Your task to perform on an android device: Add "logitech g910" to the cart on walmart Image 0: 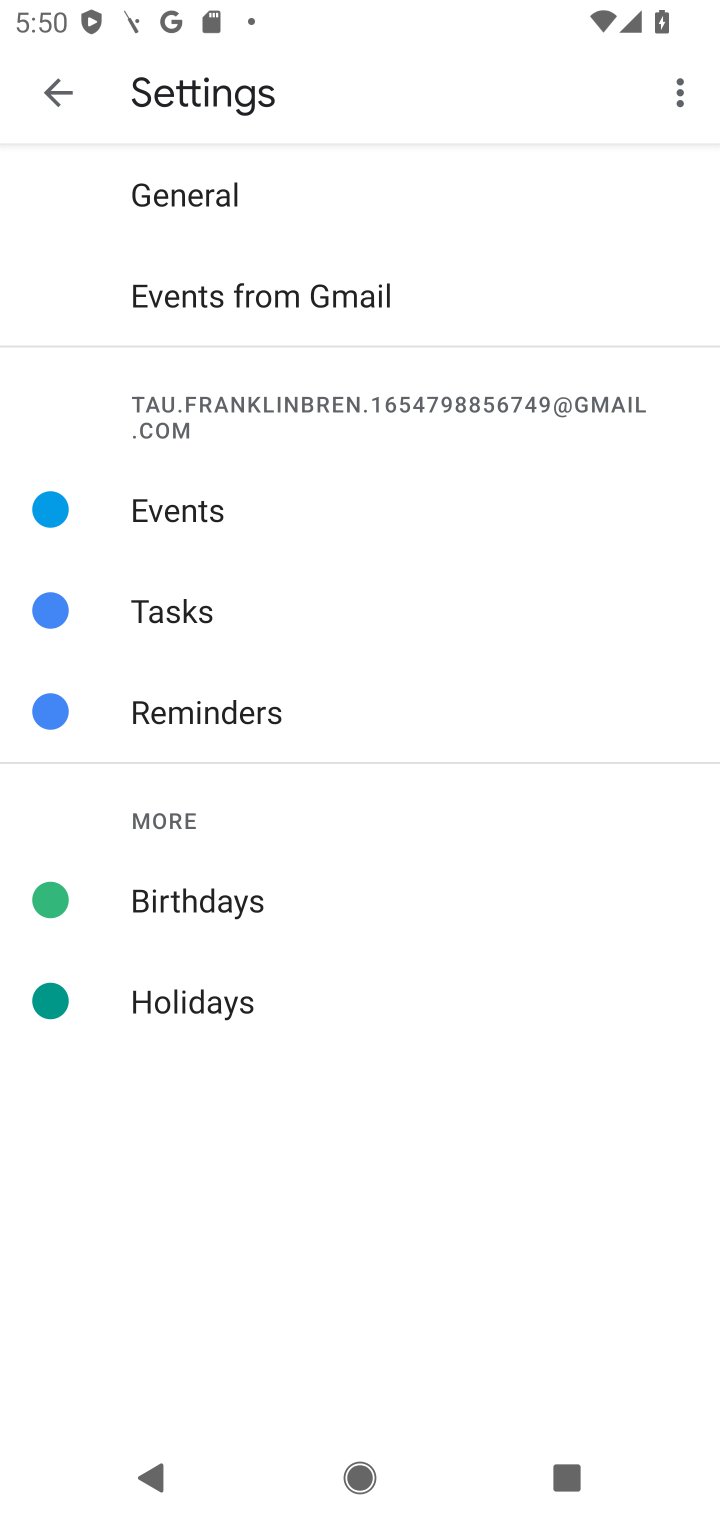
Step 0: press home button
Your task to perform on an android device: Add "logitech g910" to the cart on walmart Image 1: 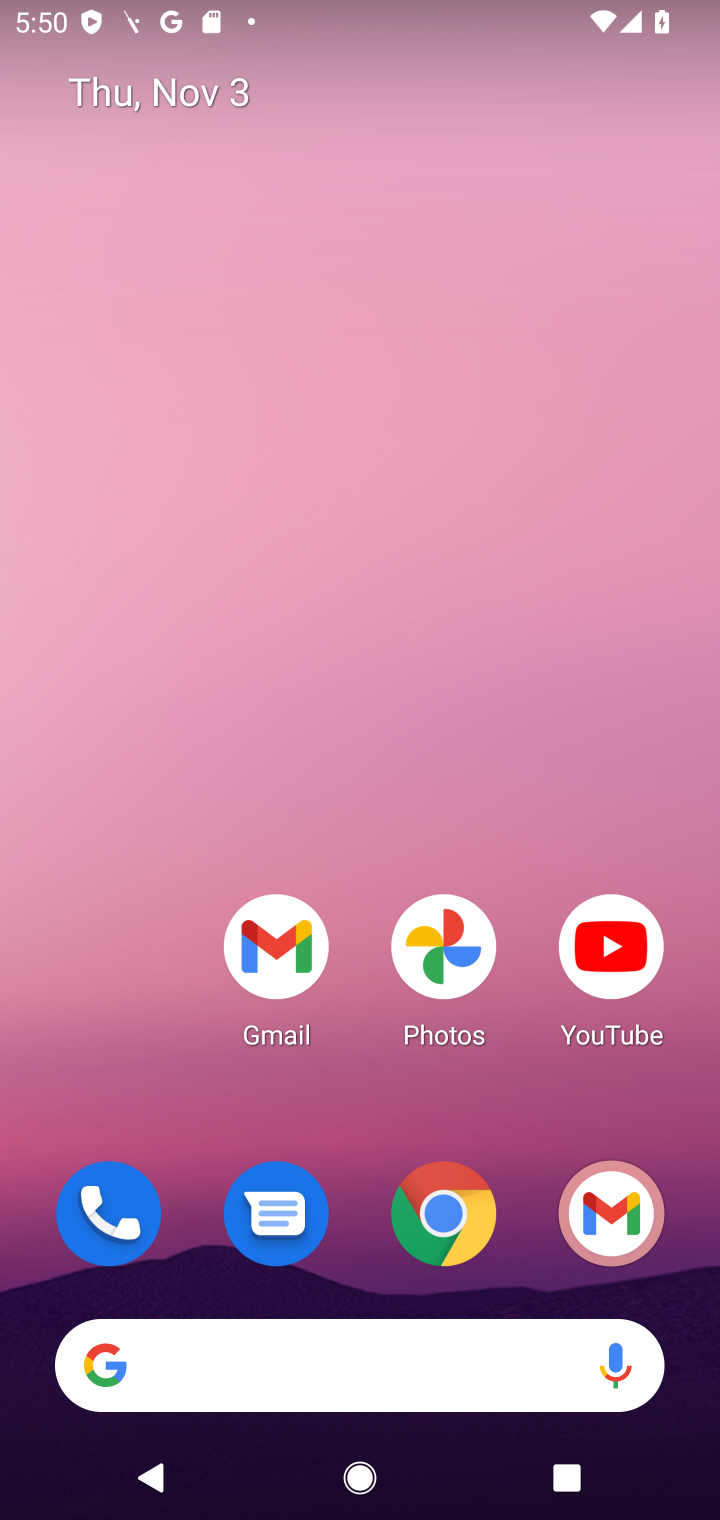
Step 1: click (433, 1236)
Your task to perform on an android device: Add "logitech g910" to the cart on walmart Image 2: 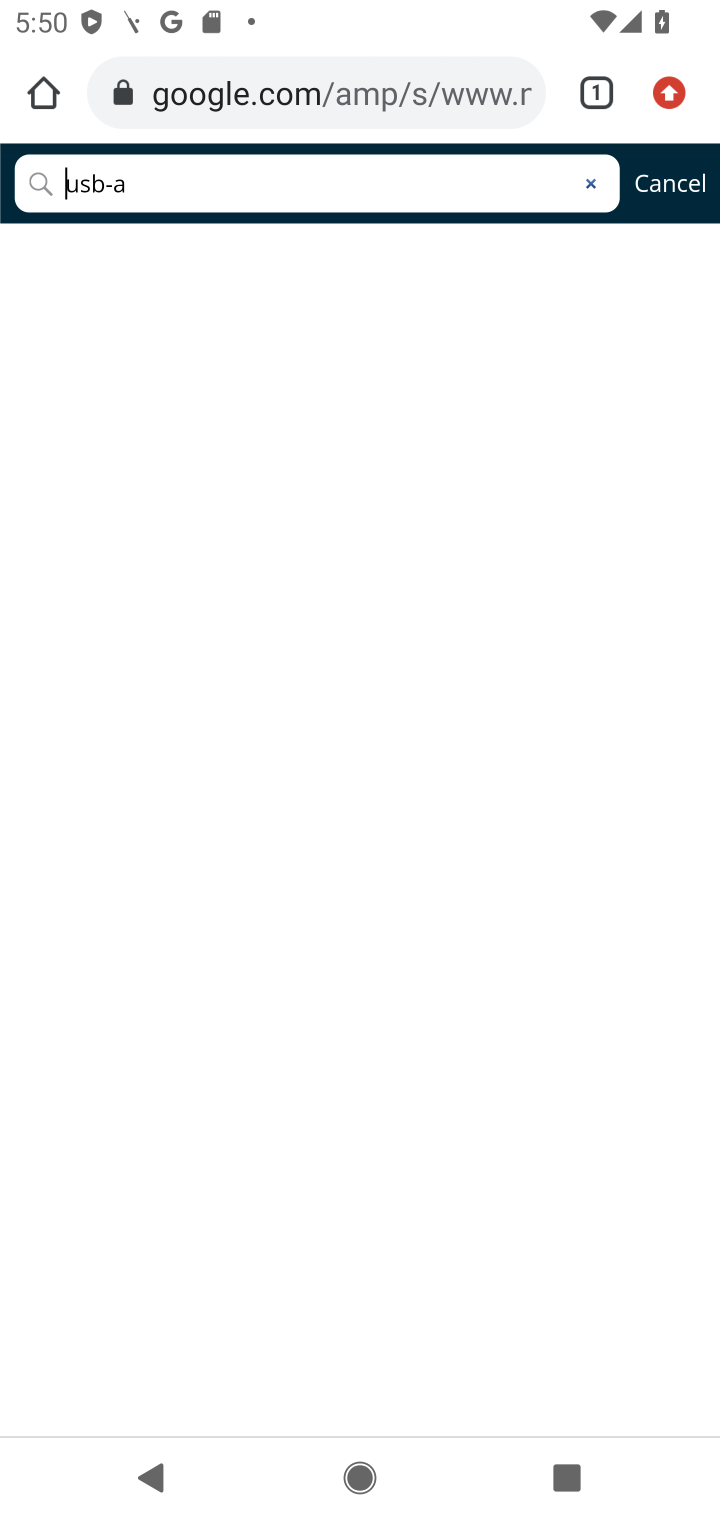
Step 2: click (360, 97)
Your task to perform on an android device: Add "logitech g910" to the cart on walmart Image 3: 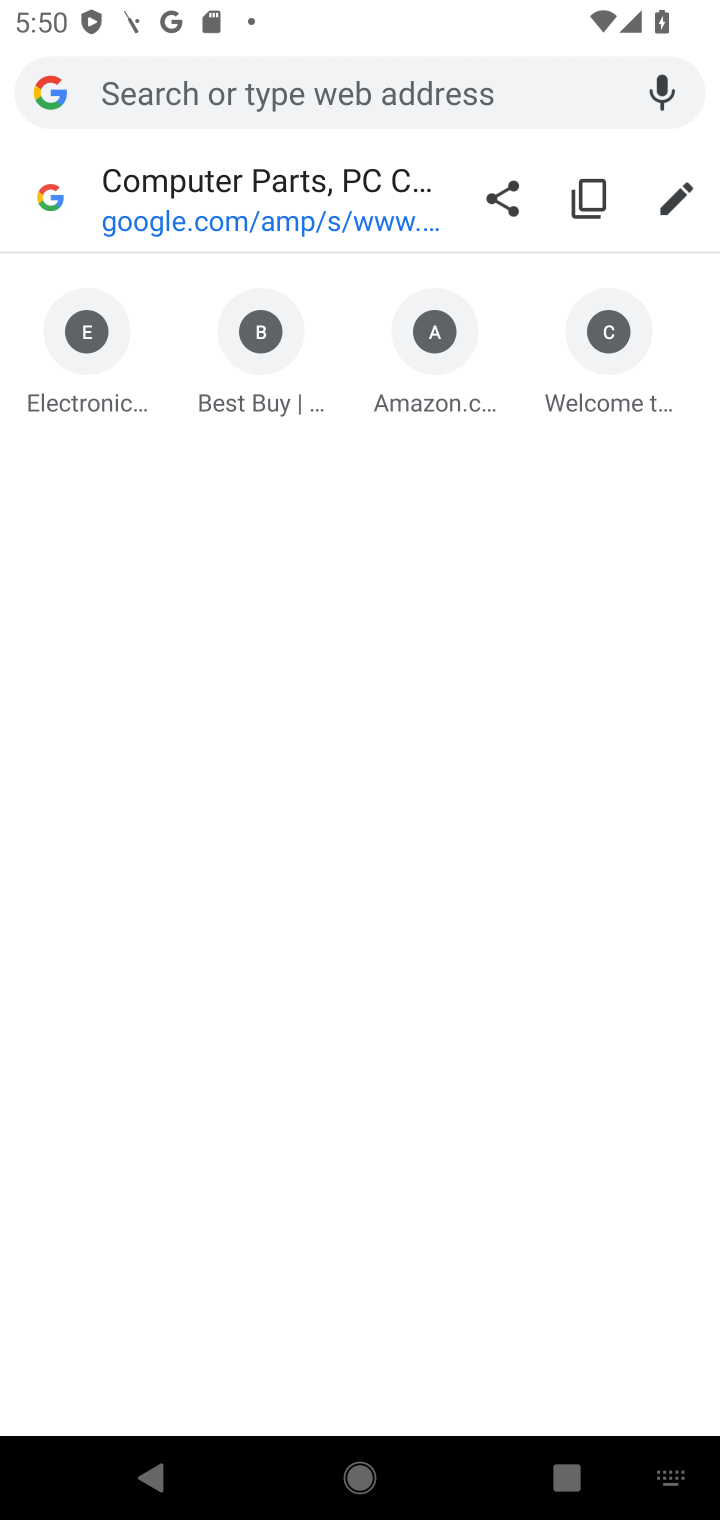
Step 3: type "walmart.com"
Your task to perform on an android device: Add "logitech g910" to the cart on walmart Image 4: 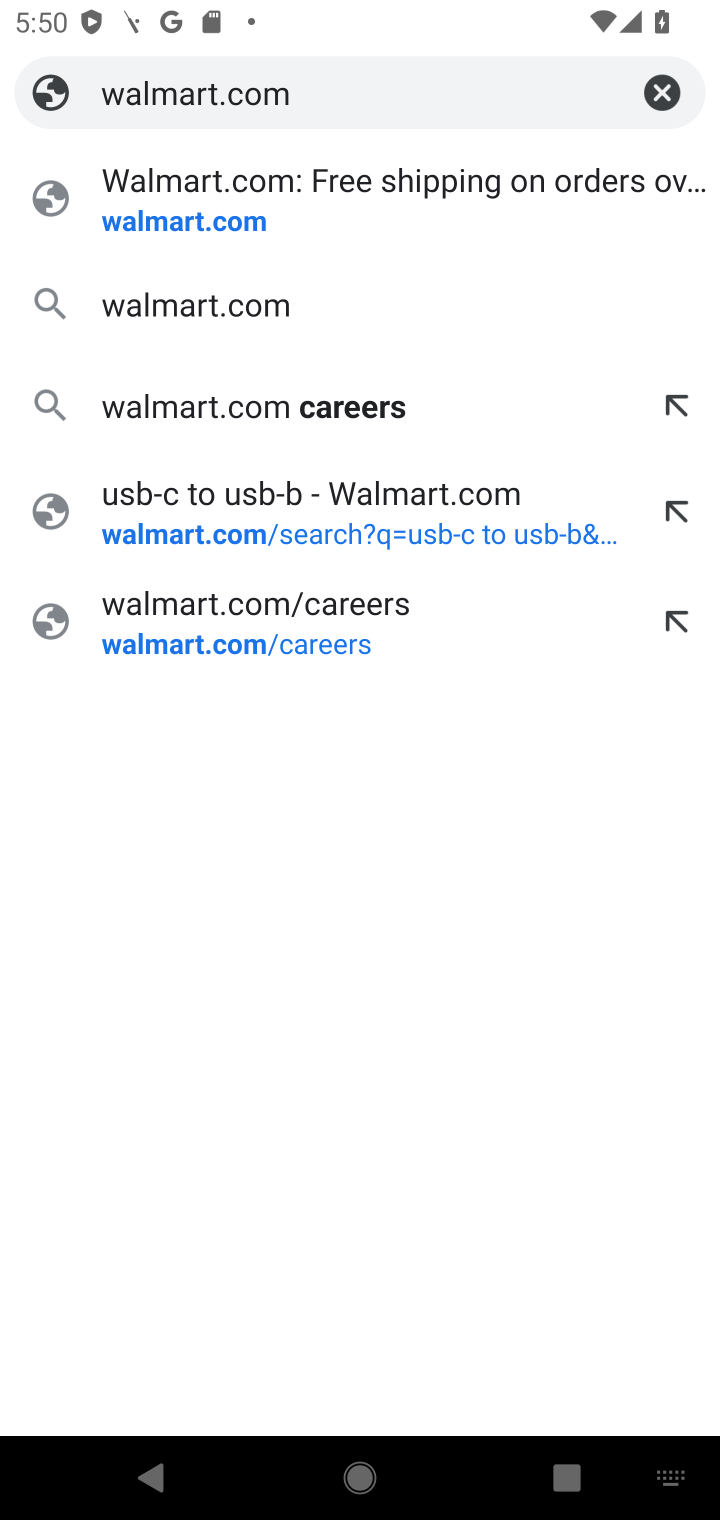
Step 4: click (201, 227)
Your task to perform on an android device: Add "logitech g910" to the cart on walmart Image 5: 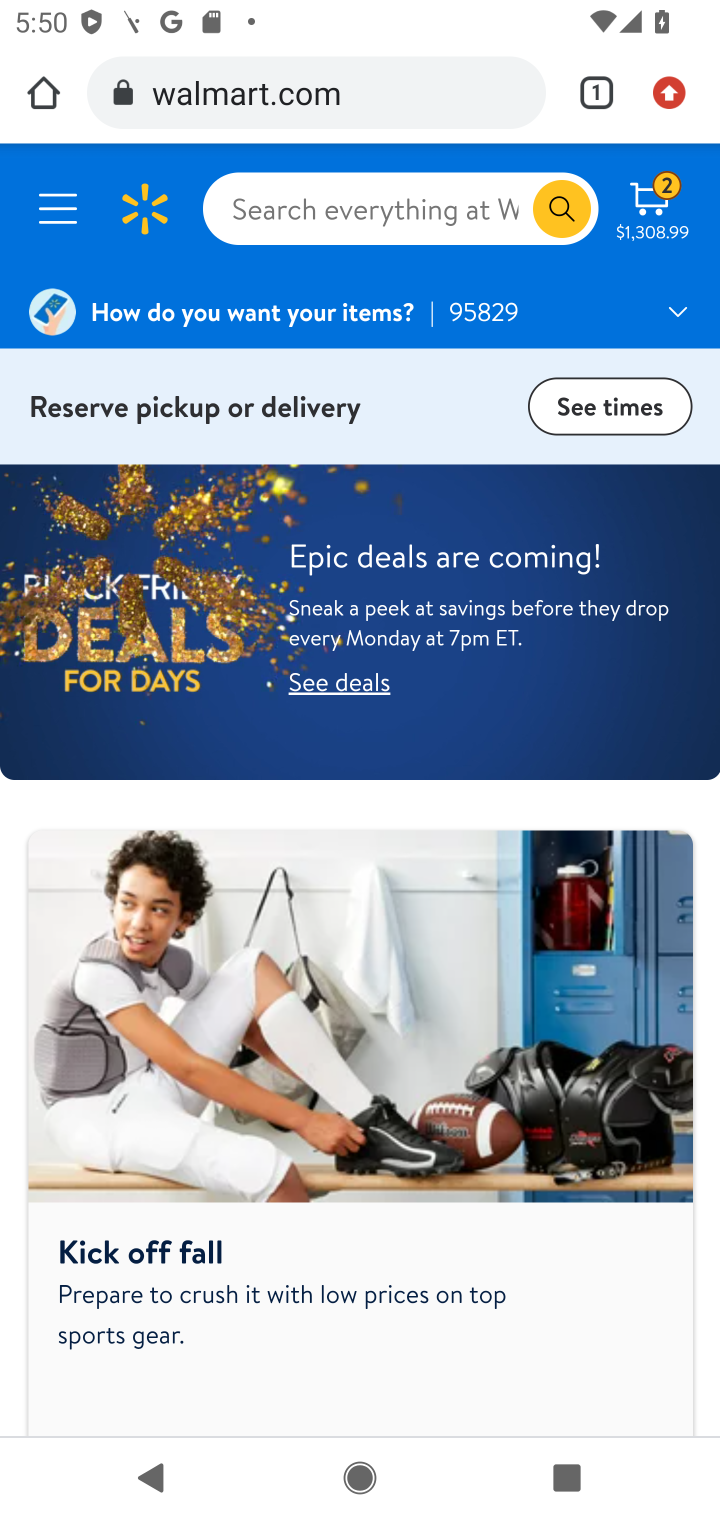
Step 5: click (257, 214)
Your task to perform on an android device: Add "logitech g910" to the cart on walmart Image 6: 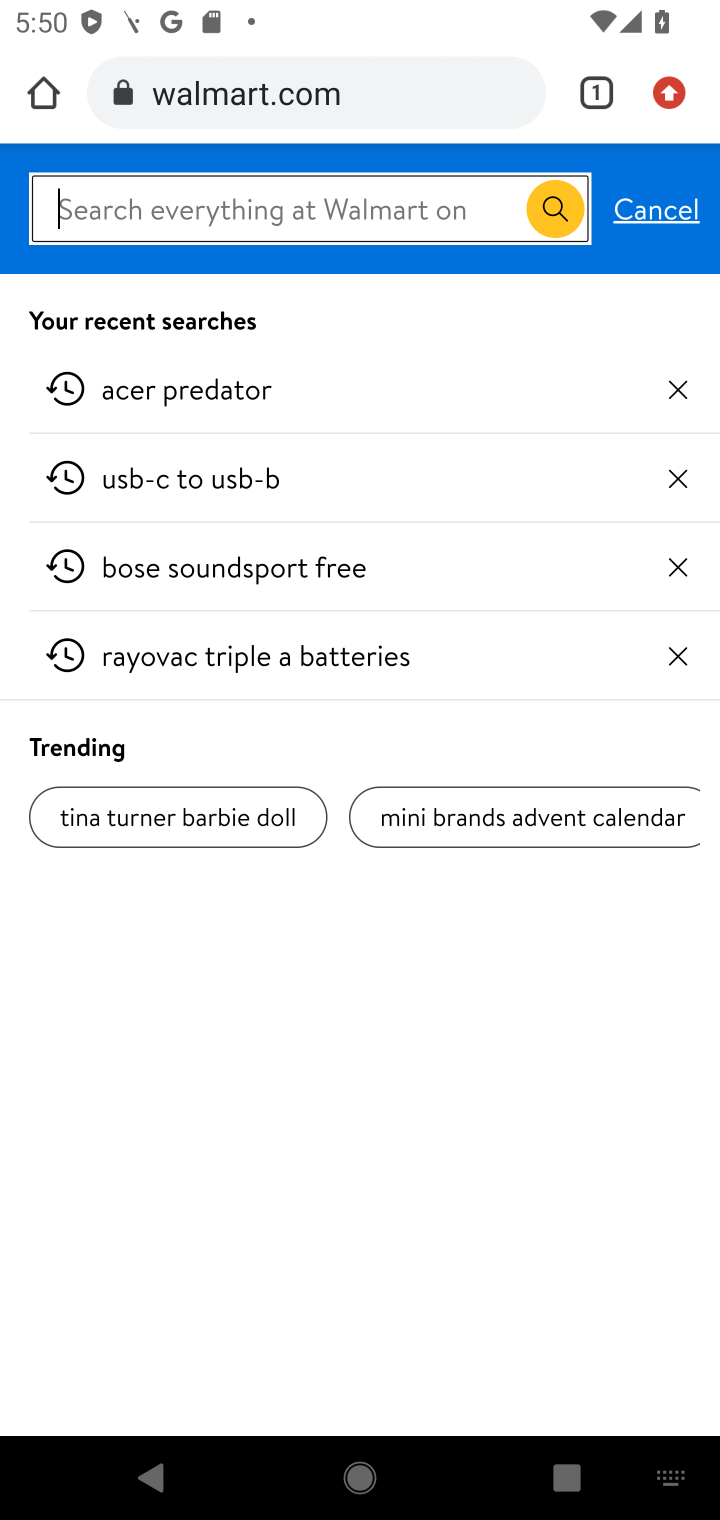
Step 6: type "logitech g910"
Your task to perform on an android device: Add "logitech g910" to the cart on walmart Image 7: 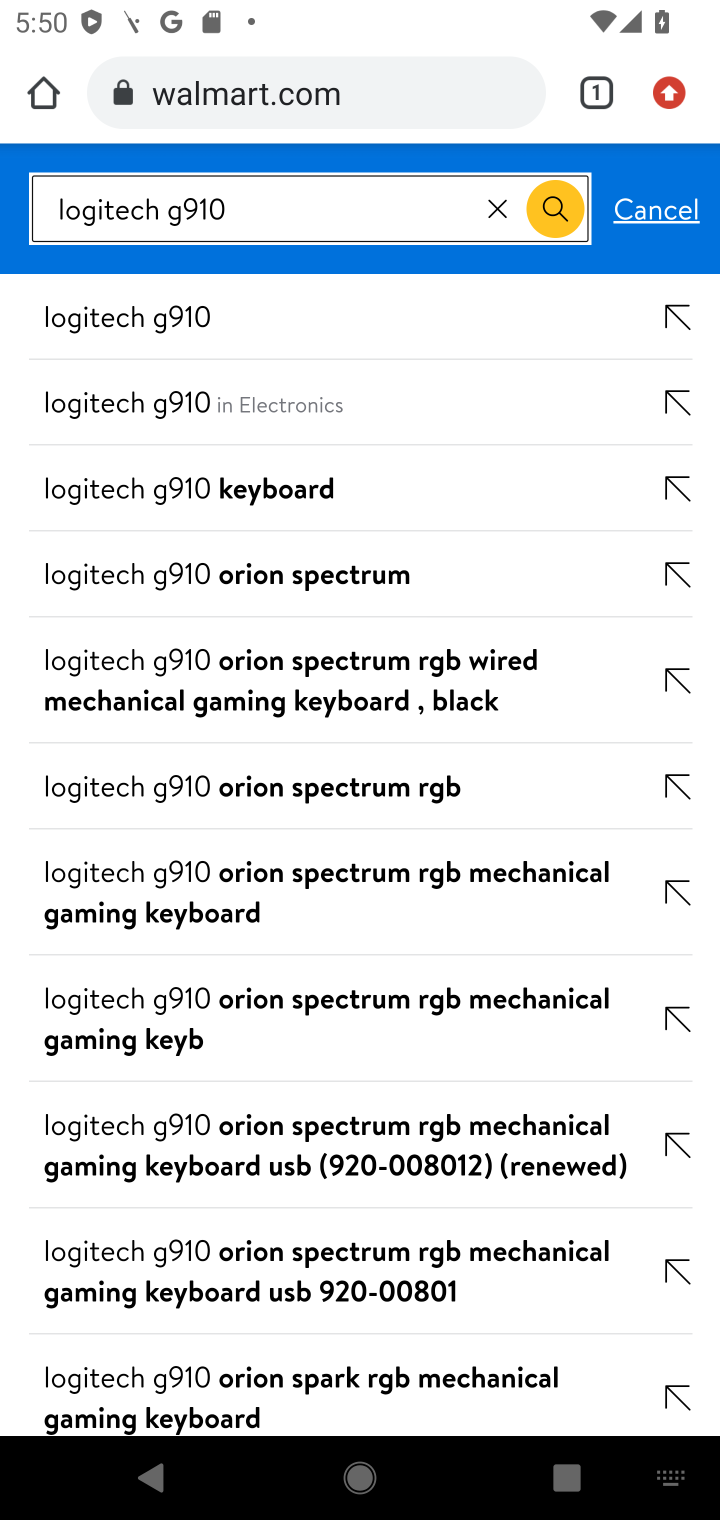
Step 7: click (151, 340)
Your task to perform on an android device: Add "logitech g910" to the cart on walmart Image 8: 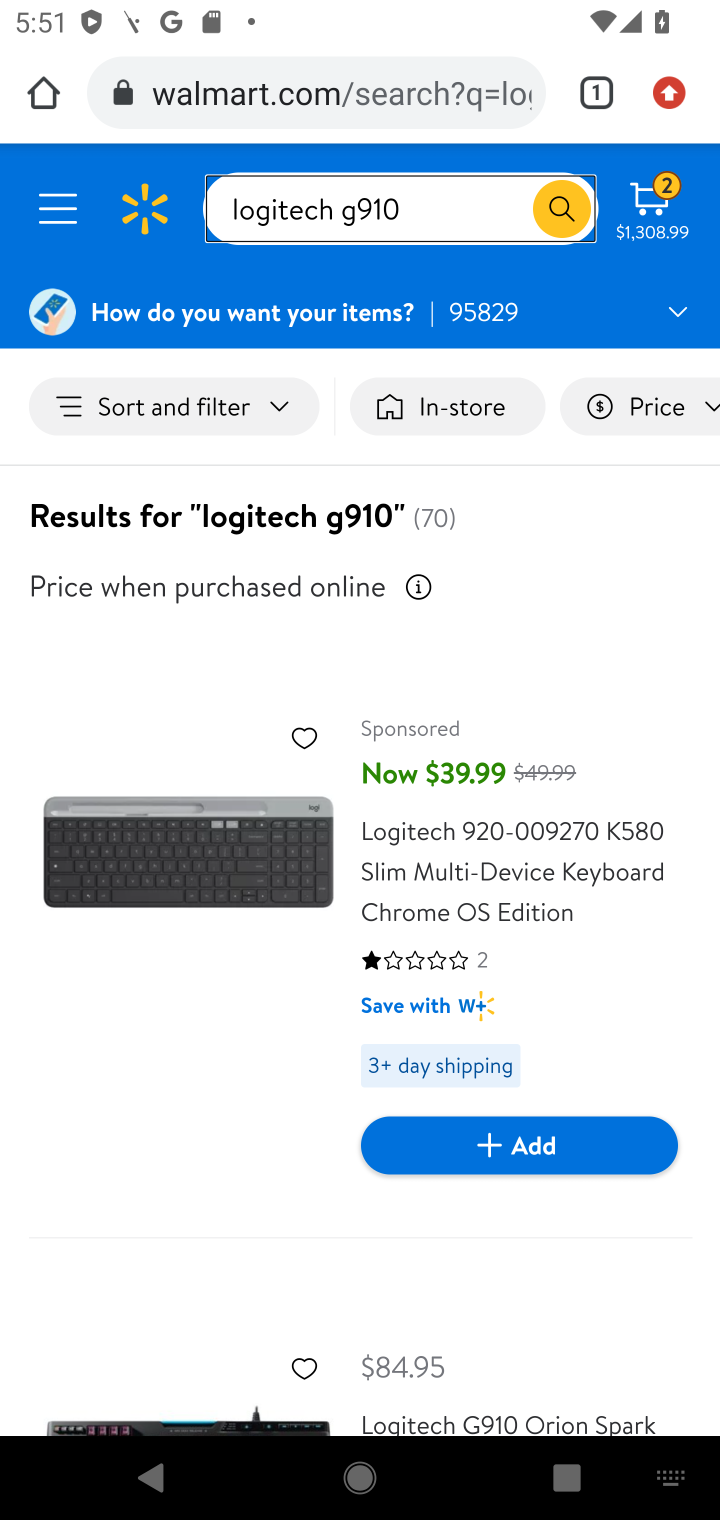
Step 8: drag from (292, 929) to (369, 472)
Your task to perform on an android device: Add "logitech g910" to the cart on walmart Image 9: 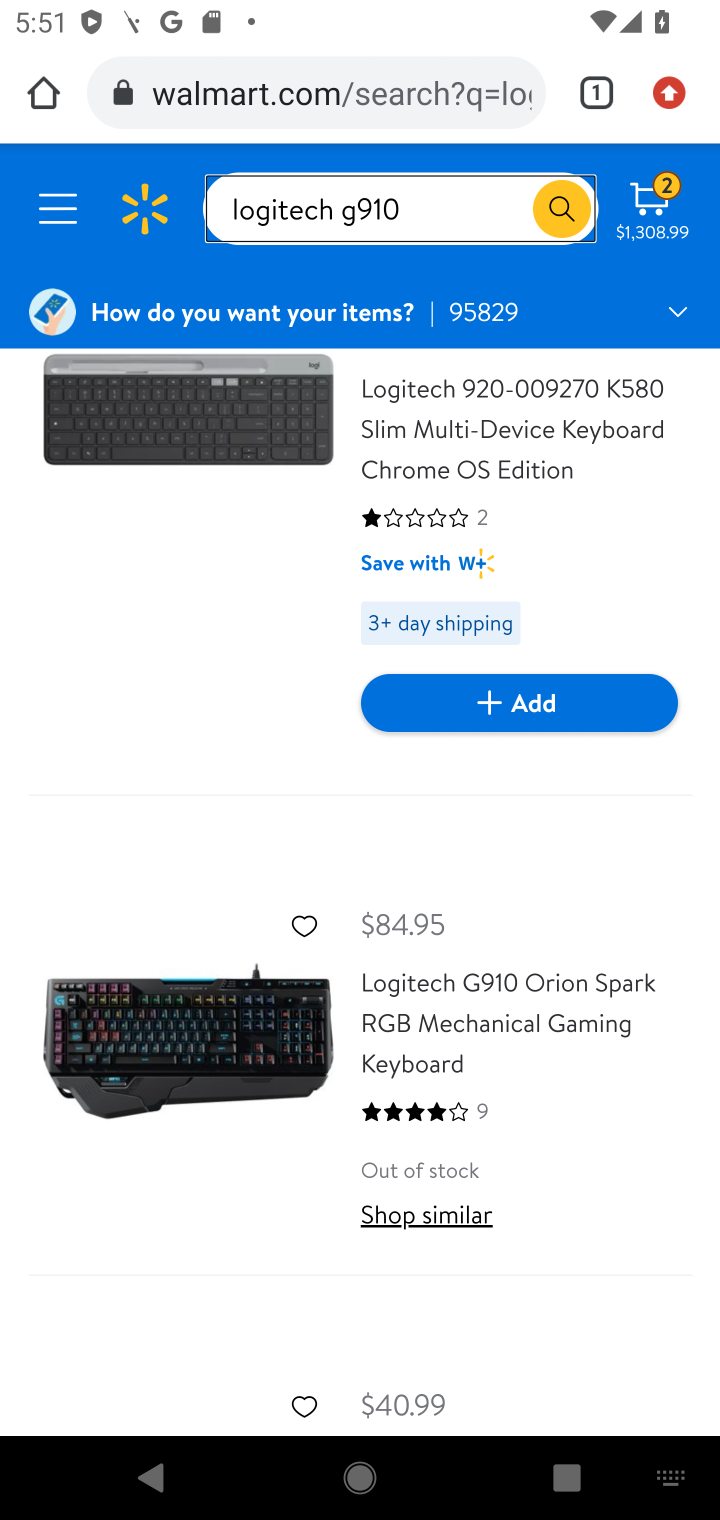
Step 9: click (401, 1022)
Your task to perform on an android device: Add "logitech g910" to the cart on walmart Image 10: 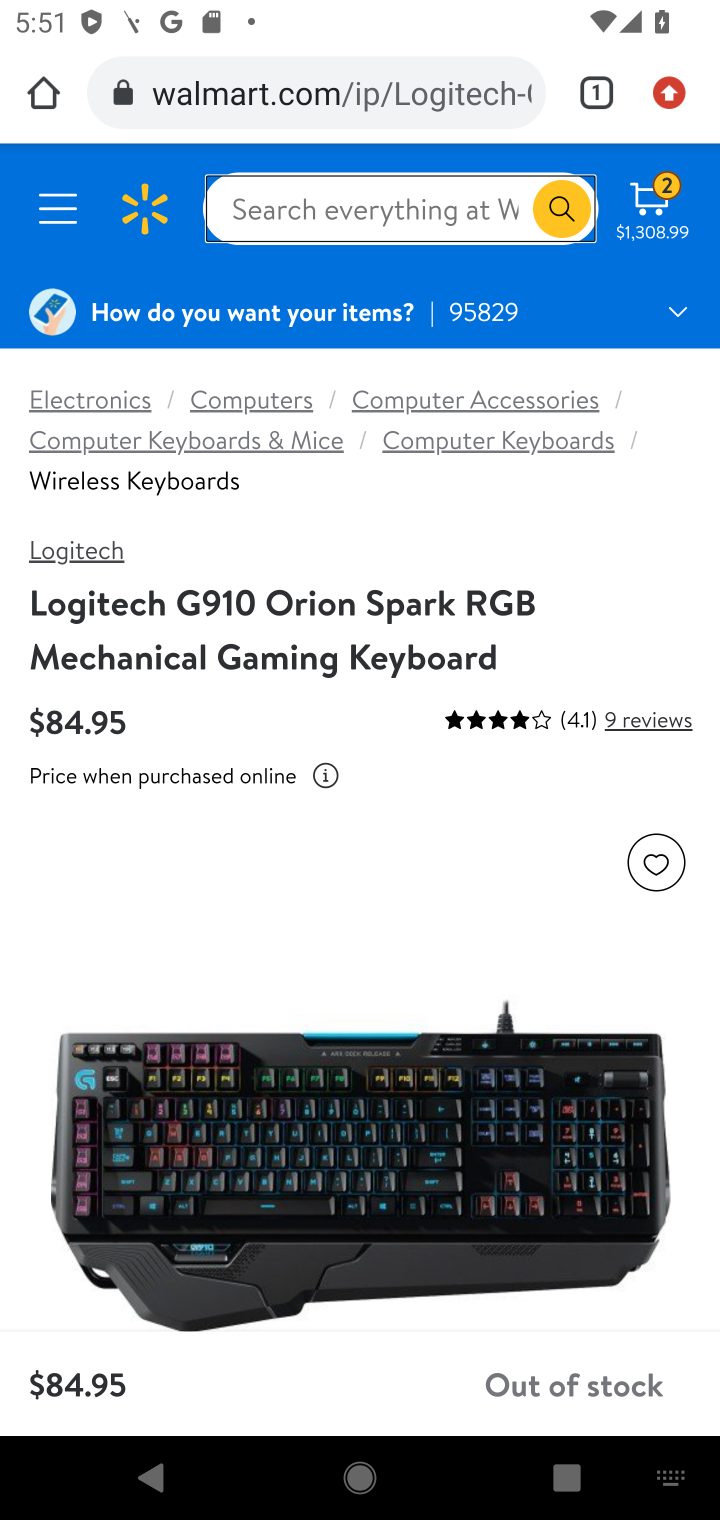
Step 10: drag from (401, 1019) to (459, 279)
Your task to perform on an android device: Add "logitech g910" to the cart on walmart Image 11: 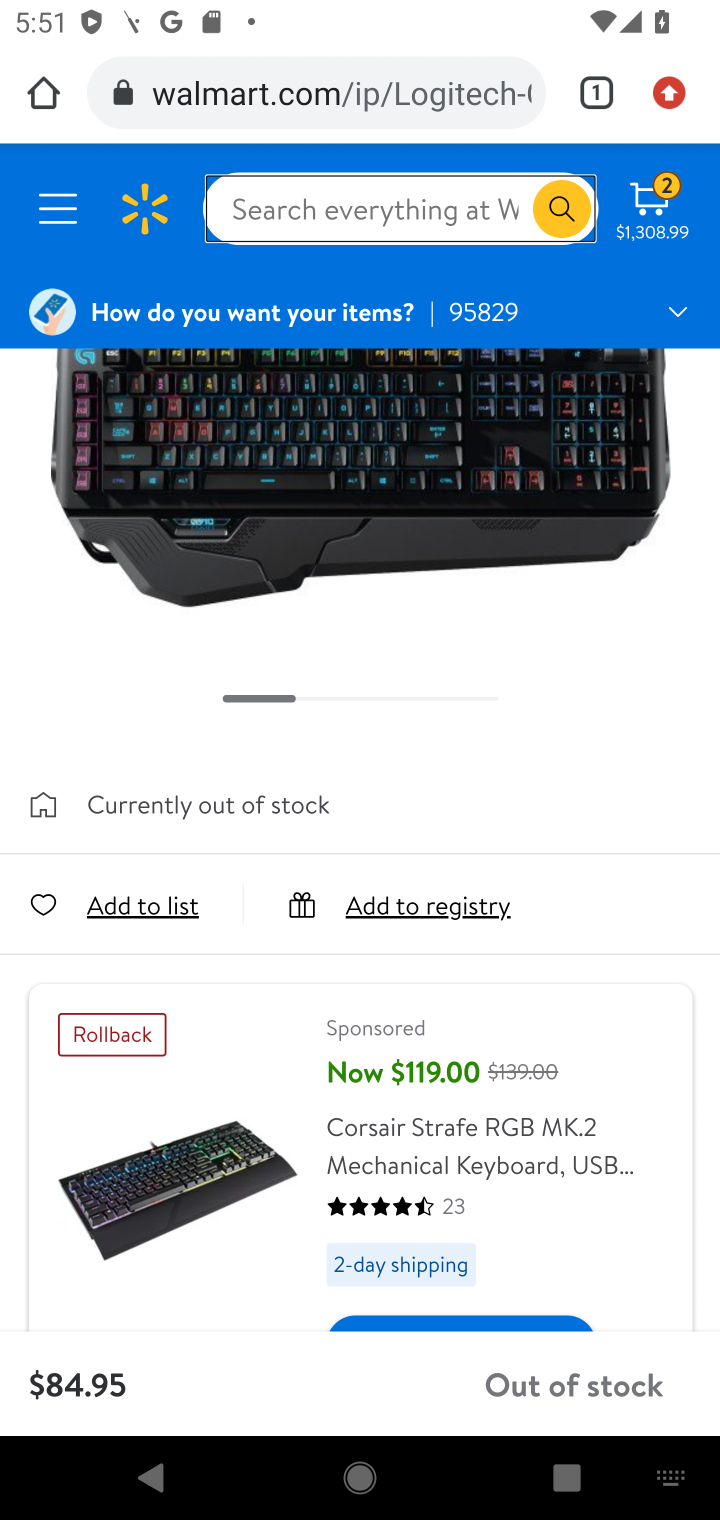
Step 11: drag from (317, 1110) to (402, 454)
Your task to perform on an android device: Add "logitech g910" to the cart on walmart Image 12: 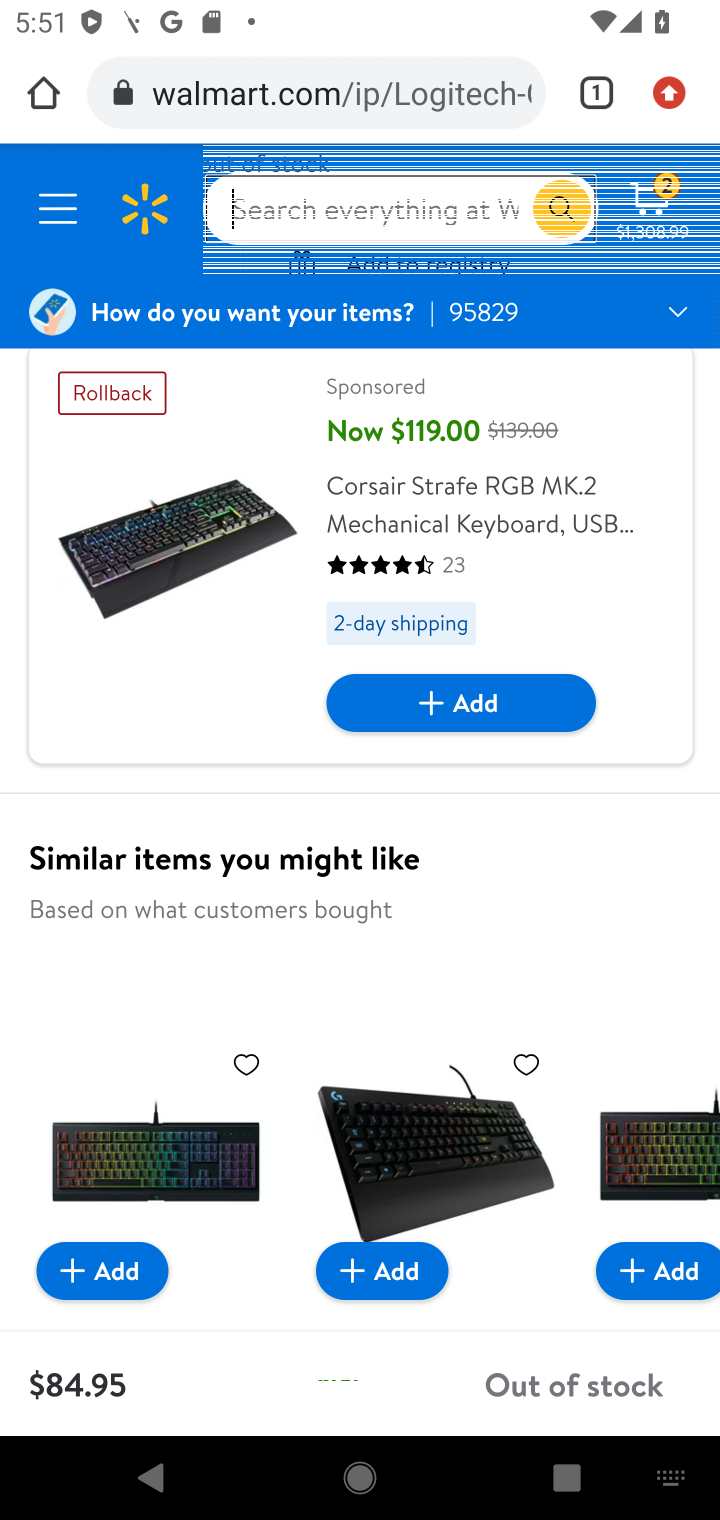
Step 12: click (439, 722)
Your task to perform on an android device: Add "logitech g910" to the cart on walmart Image 13: 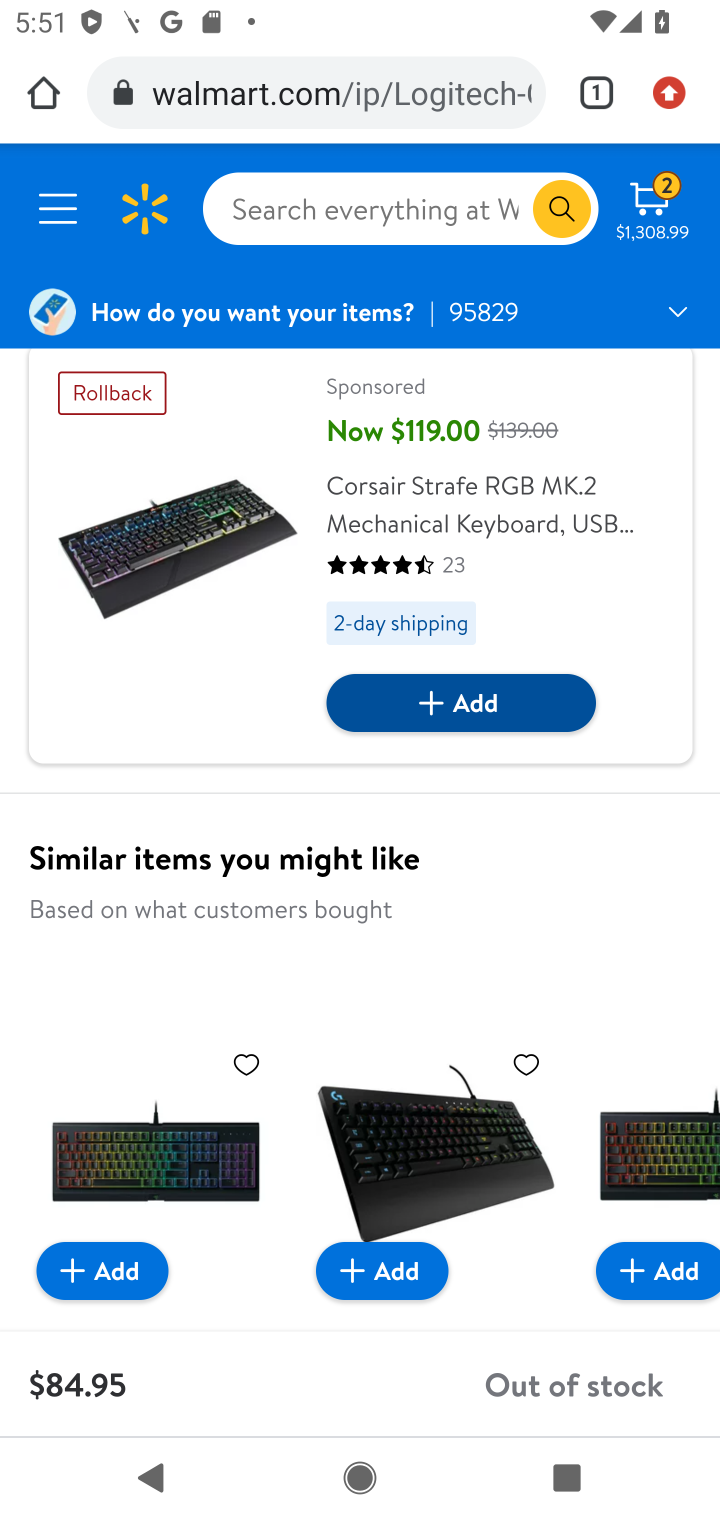
Step 13: drag from (449, 525) to (444, 935)
Your task to perform on an android device: Add "logitech g910" to the cart on walmart Image 14: 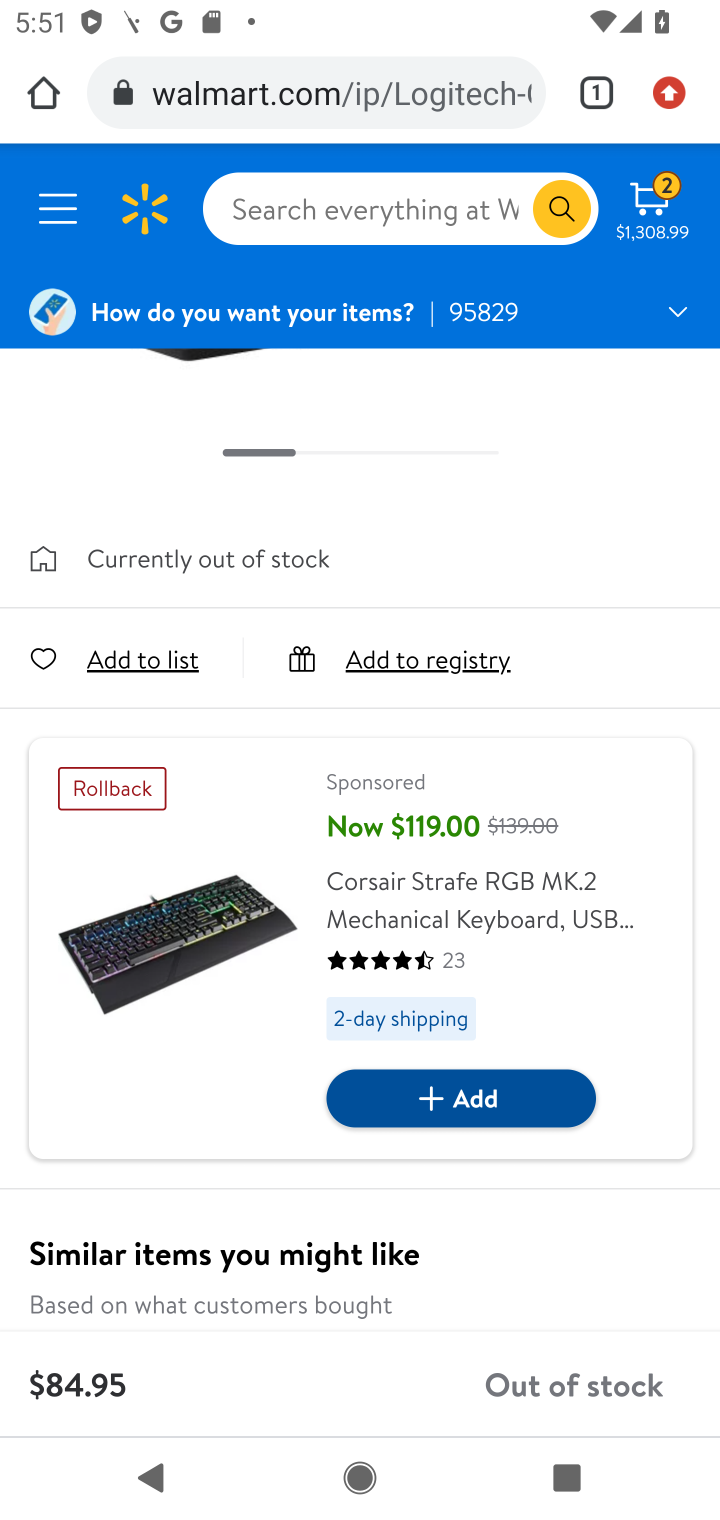
Step 14: drag from (477, 596) to (463, 975)
Your task to perform on an android device: Add "logitech g910" to the cart on walmart Image 15: 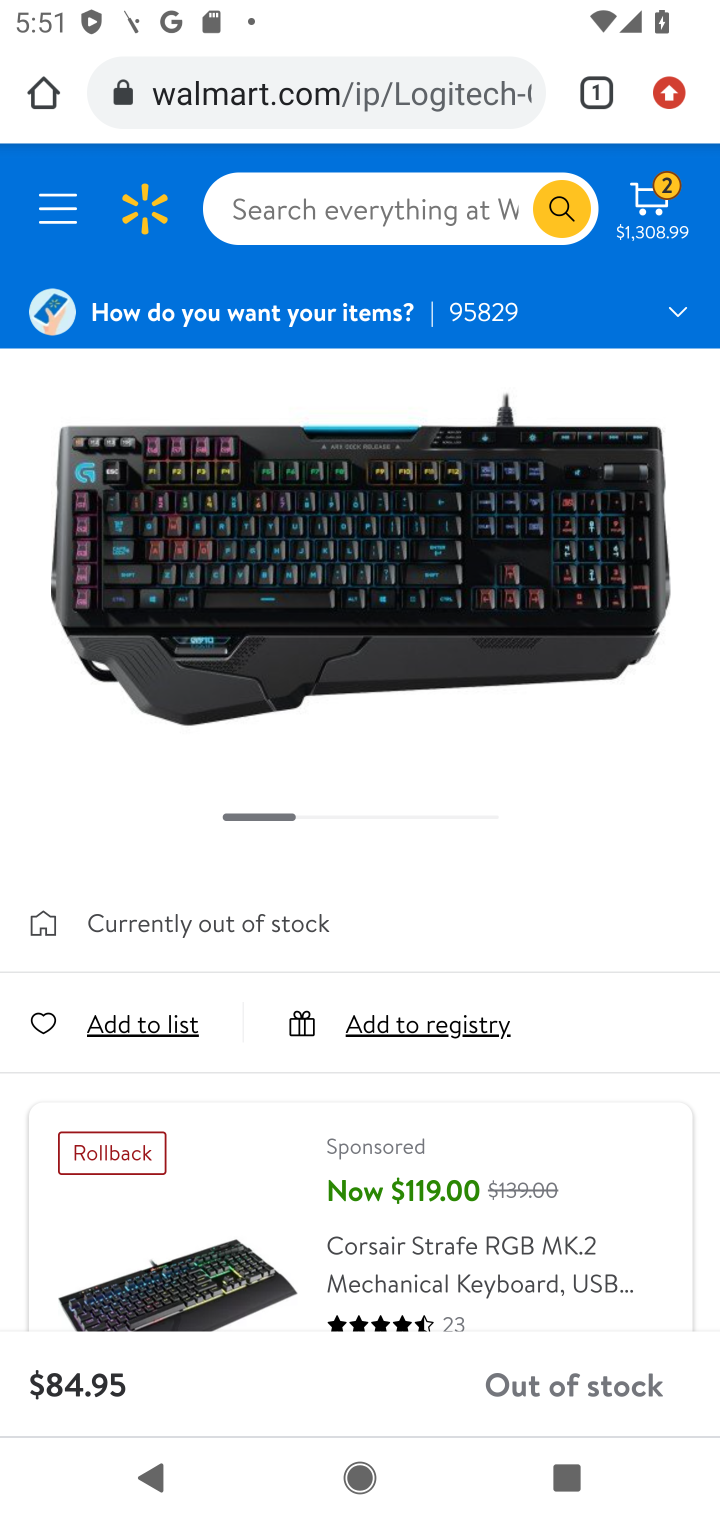
Step 15: drag from (459, 748) to (414, 1180)
Your task to perform on an android device: Add "logitech g910" to the cart on walmart Image 16: 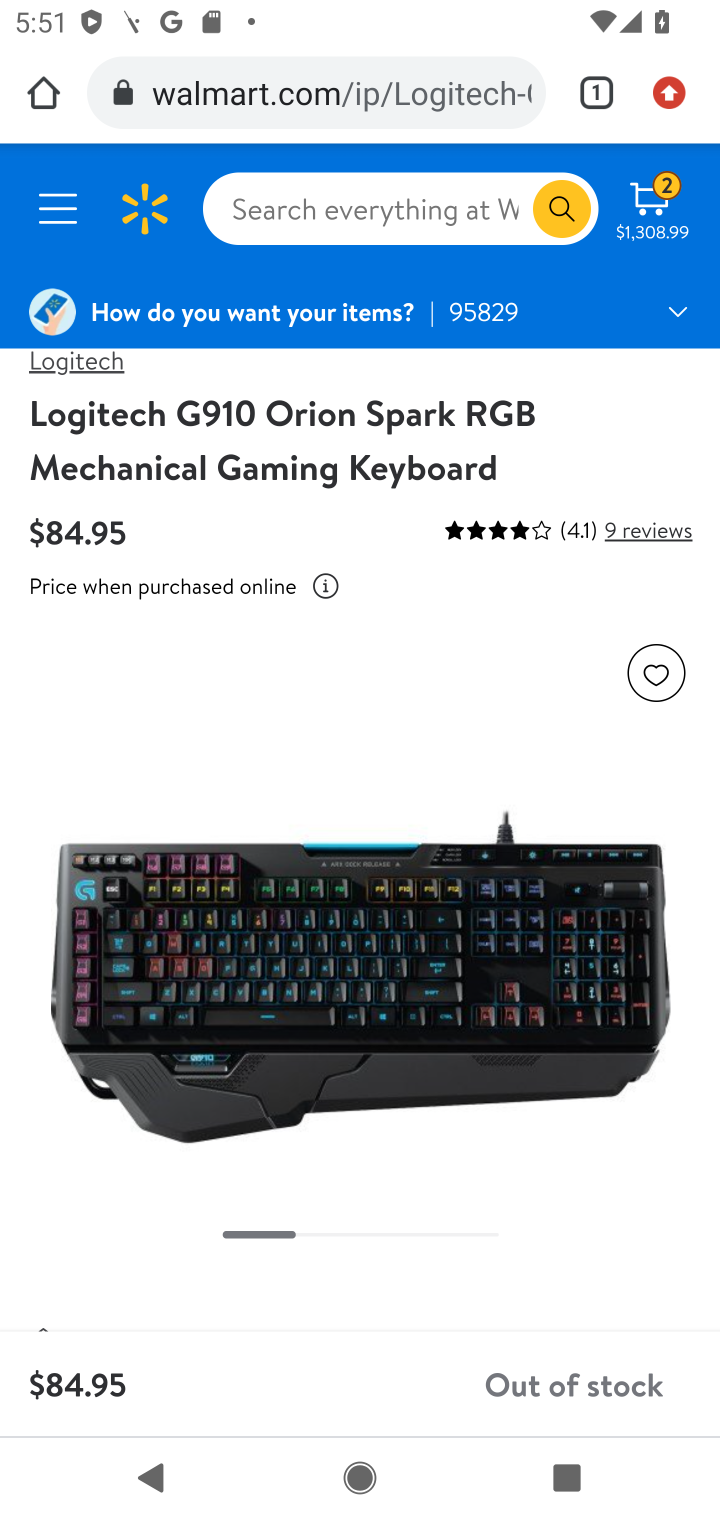
Step 16: press back button
Your task to perform on an android device: Add "logitech g910" to the cart on walmart Image 17: 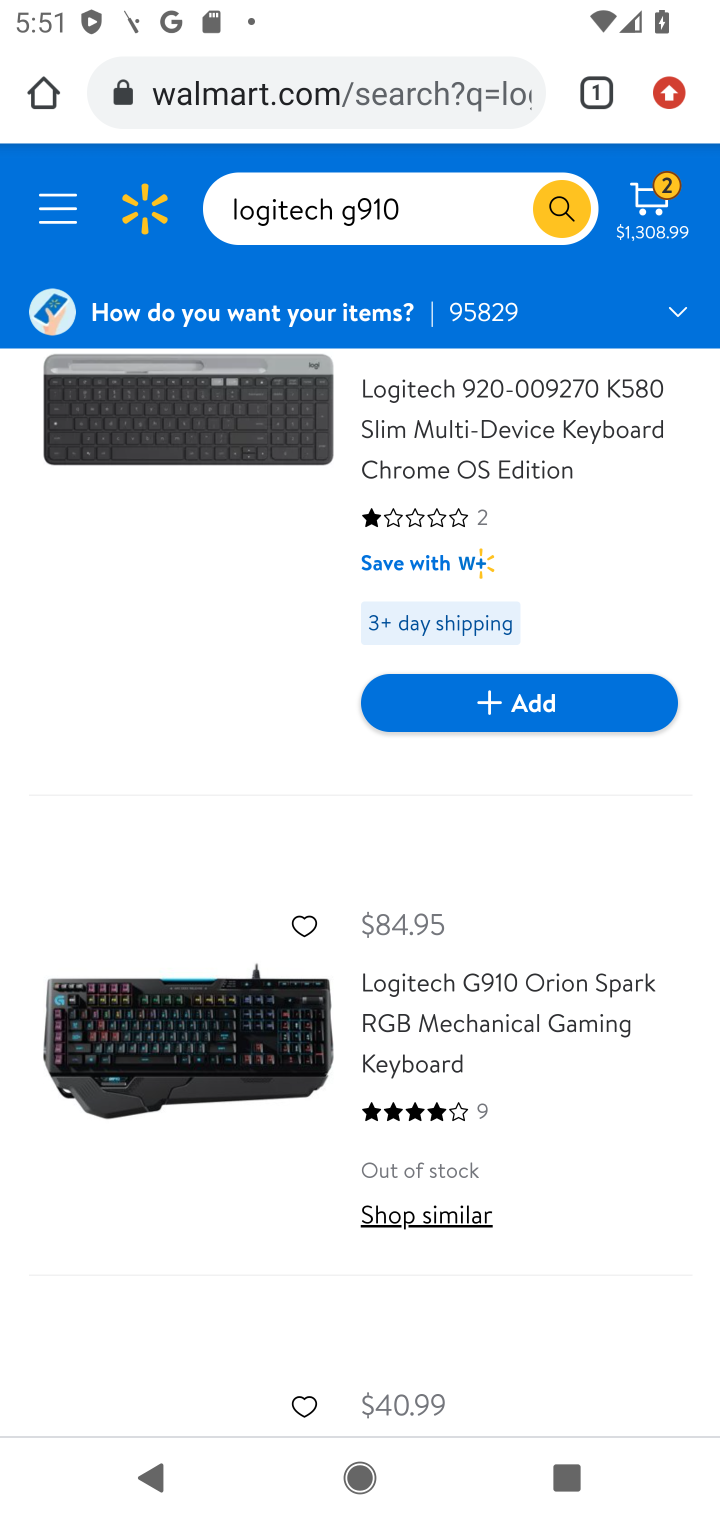
Step 17: drag from (389, 1000) to (443, 430)
Your task to perform on an android device: Add "logitech g910" to the cart on walmart Image 18: 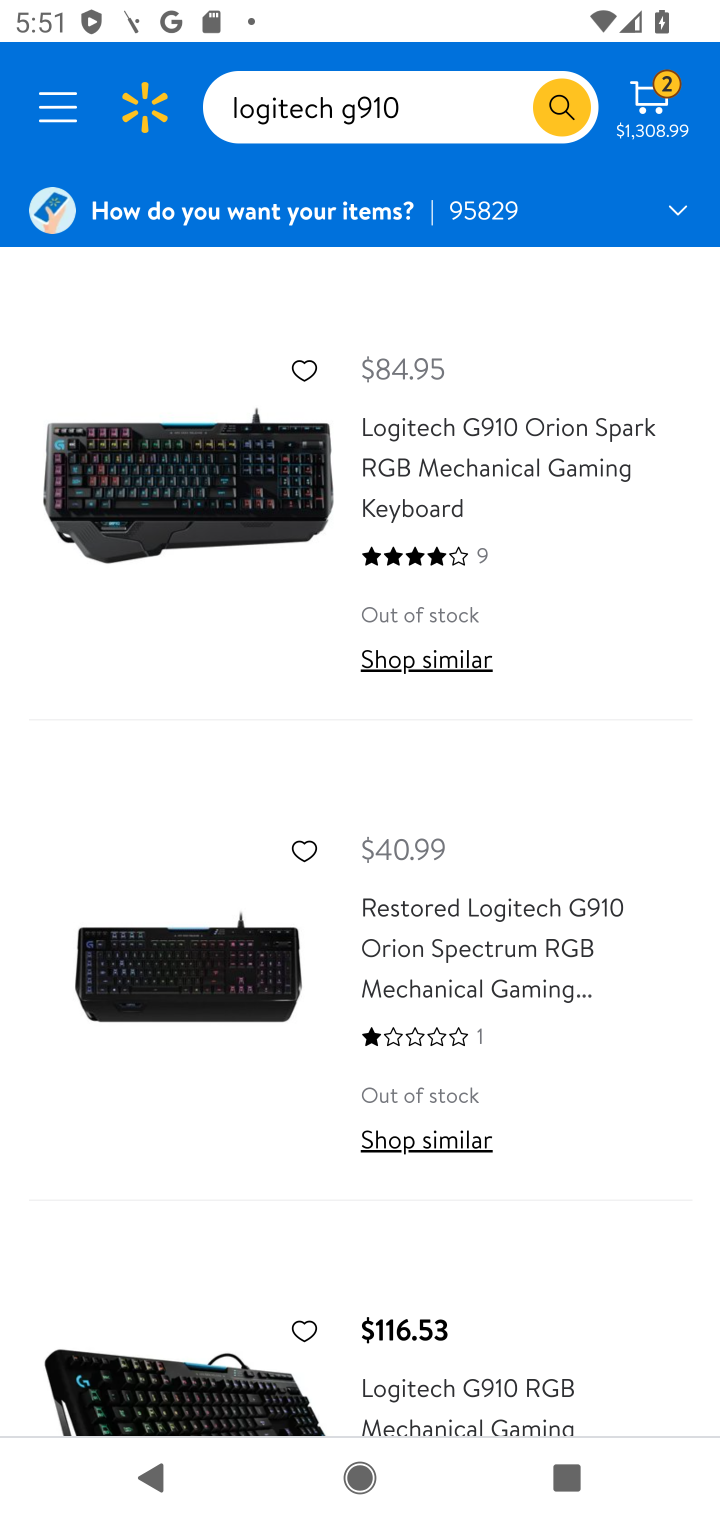
Step 18: click (374, 1020)
Your task to perform on an android device: Add "logitech g910" to the cart on walmart Image 19: 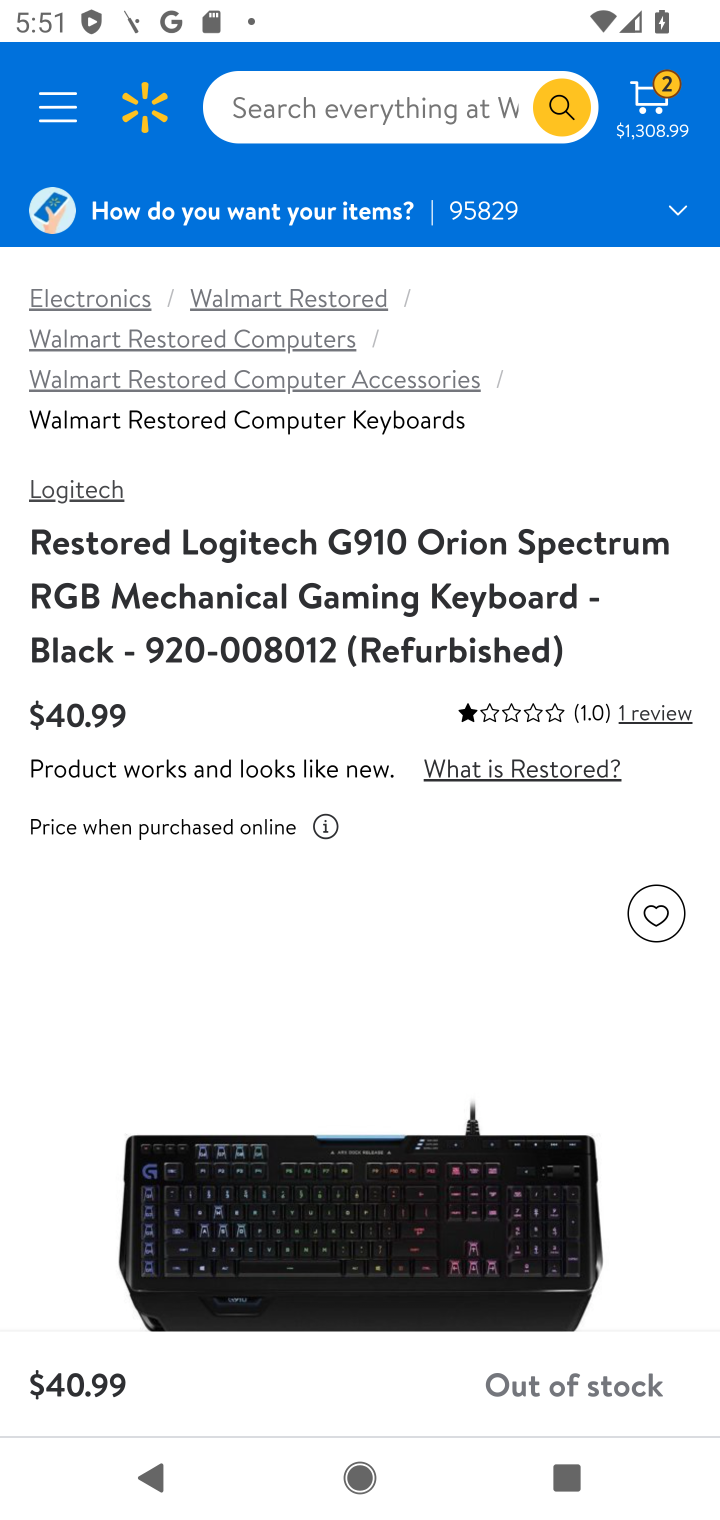
Step 19: task complete